Your task to perform on an android device: see tabs open on other devices in the chrome app Image 0: 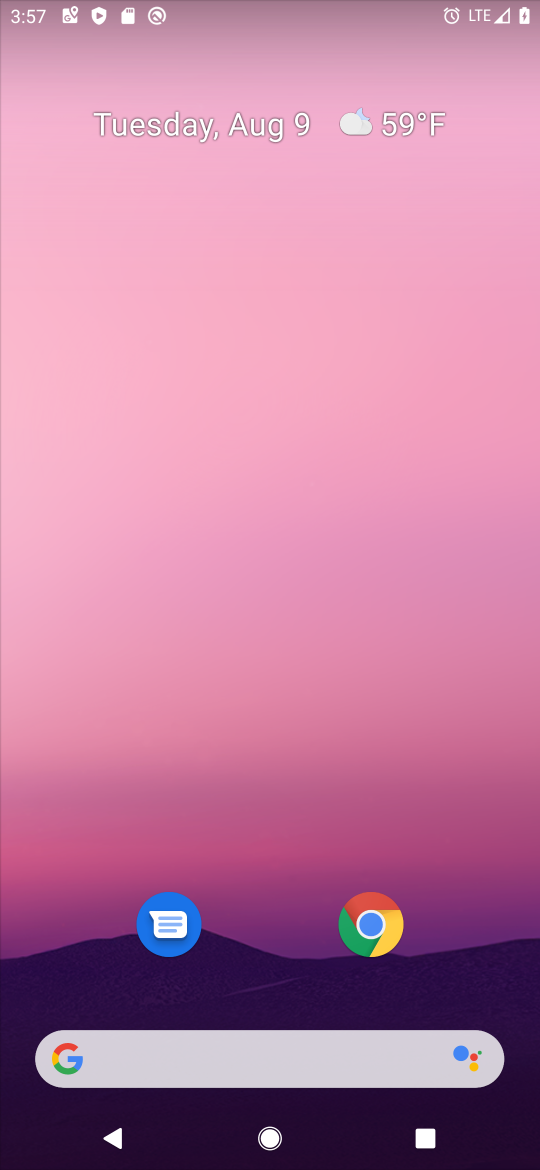
Step 0: click (378, 921)
Your task to perform on an android device: see tabs open on other devices in the chrome app Image 1: 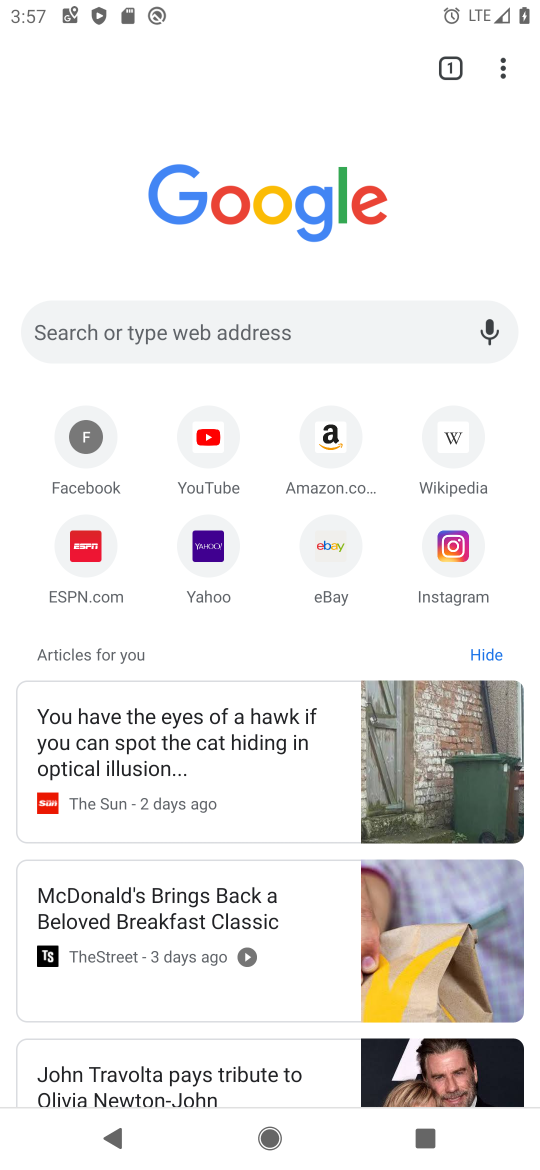
Step 1: click (504, 69)
Your task to perform on an android device: see tabs open on other devices in the chrome app Image 2: 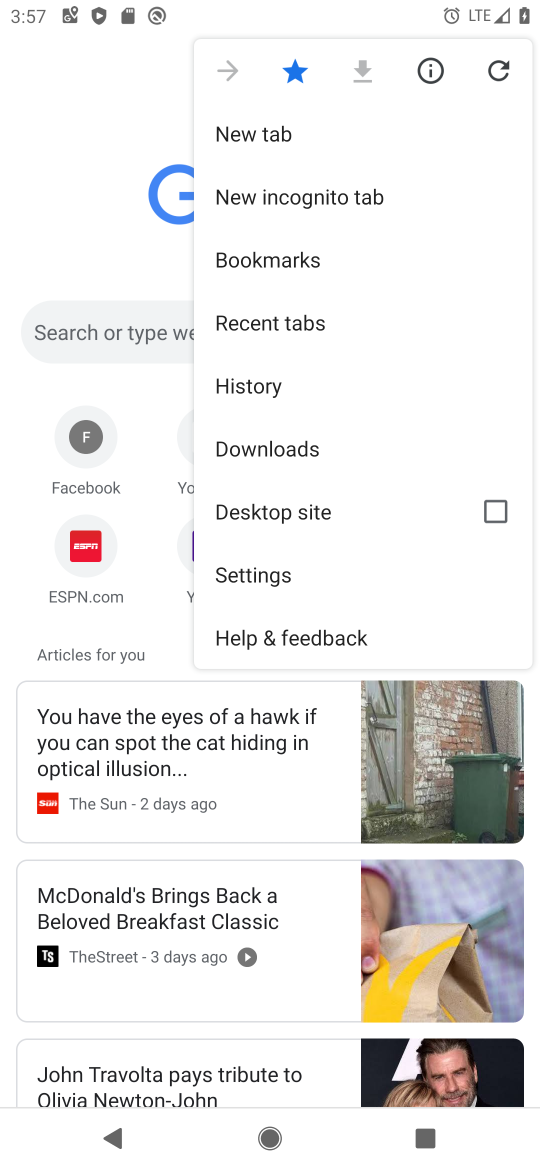
Step 2: click (278, 317)
Your task to perform on an android device: see tabs open on other devices in the chrome app Image 3: 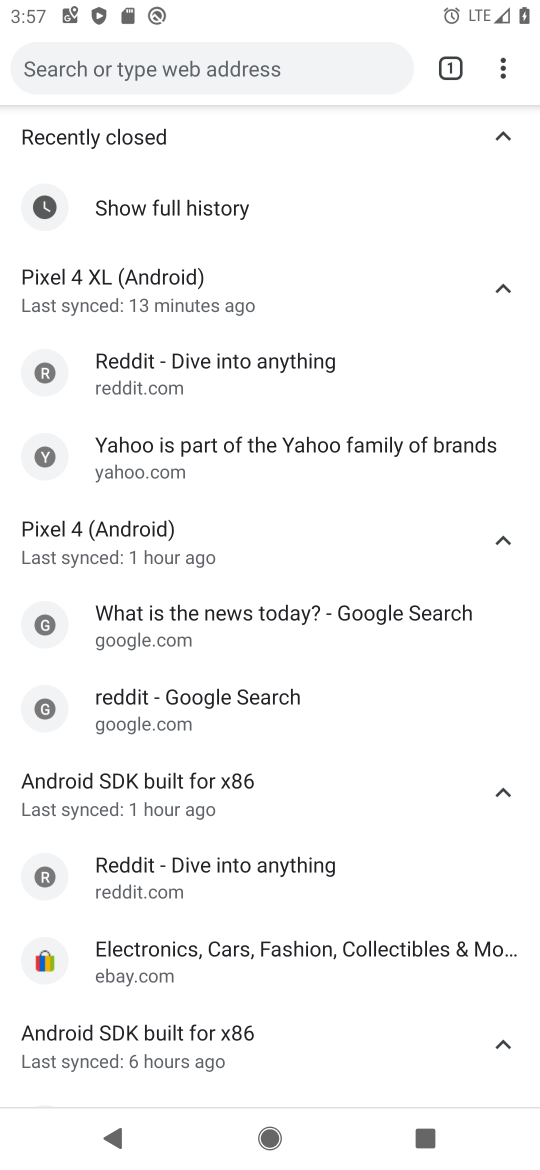
Step 3: task complete